Your task to perform on an android device: Open Google Chrome Image 0: 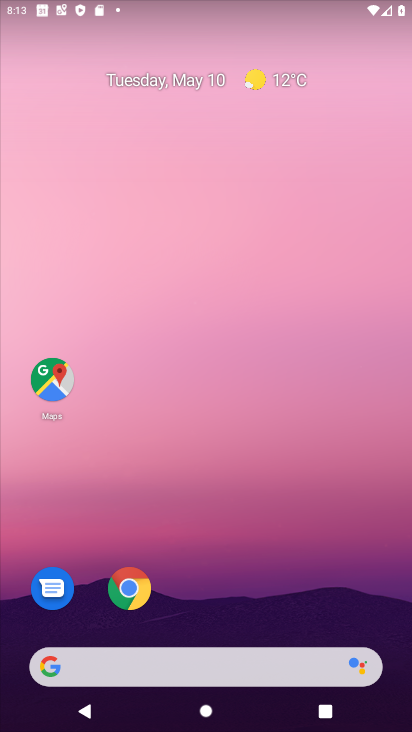
Step 0: click (124, 590)
Your task to perform on an android device: Open Google Chrome Image 1: 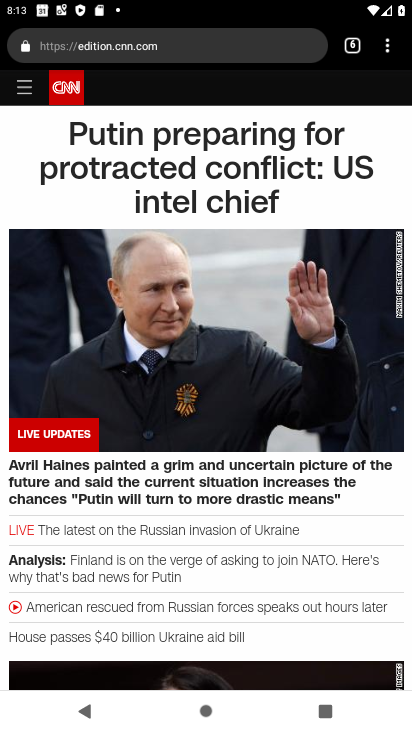
Step 1: task complete